Your task to perform on an android device: Show me popular games on the Play Store Image 0: 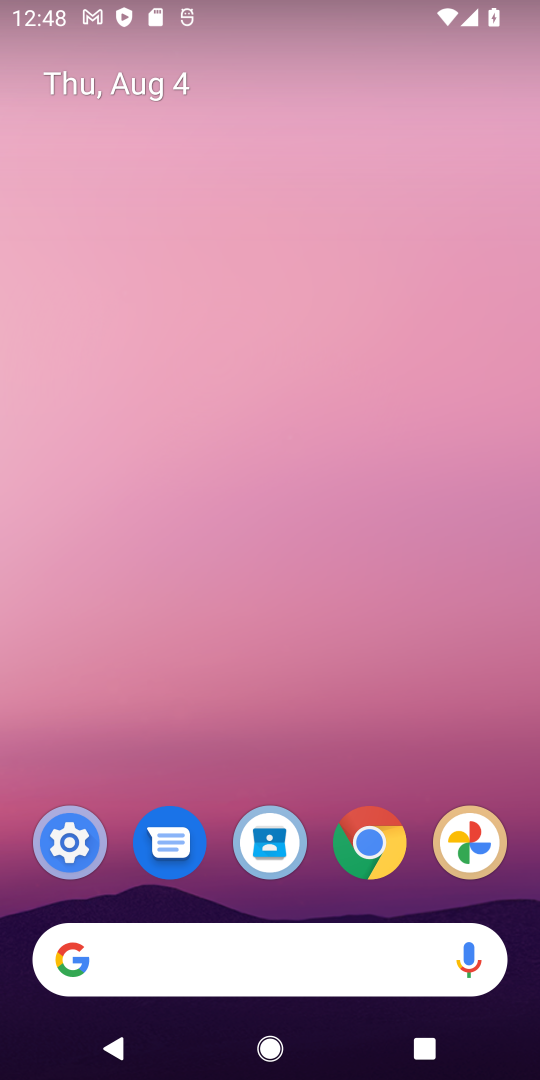
Step 0: drag from (353, 780) to (314, 354)
Your task to perform on an android device: Show me popular games on the Play Store Image 1: 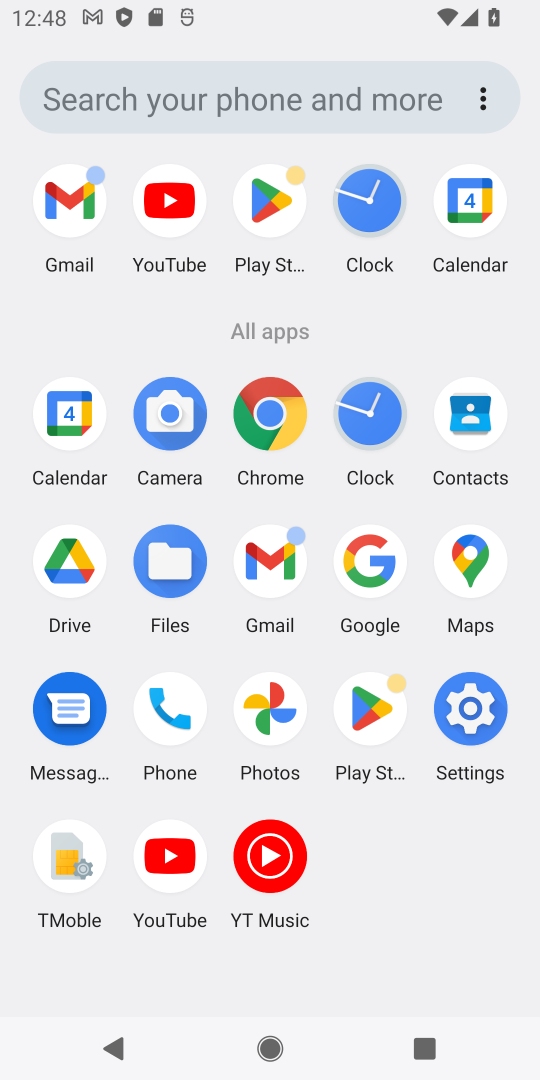
Step 1: click (370, 717)
Your task to perform on an android device: Show me popular games on the Play Store Image 2: 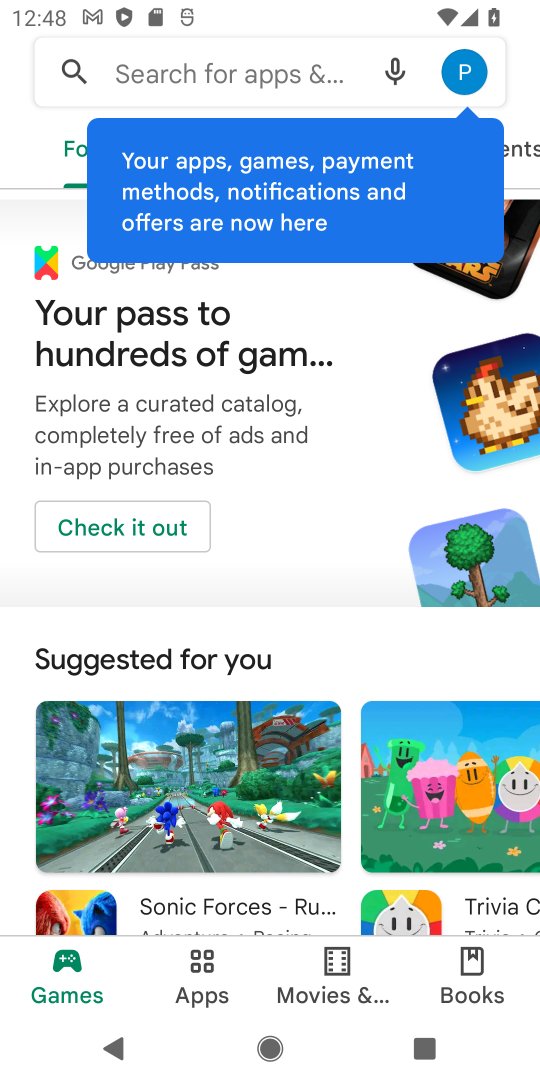
Step 2: click (56, 143)
Your task to perform on an android device: Show me popular games on the Play Store Image 3: 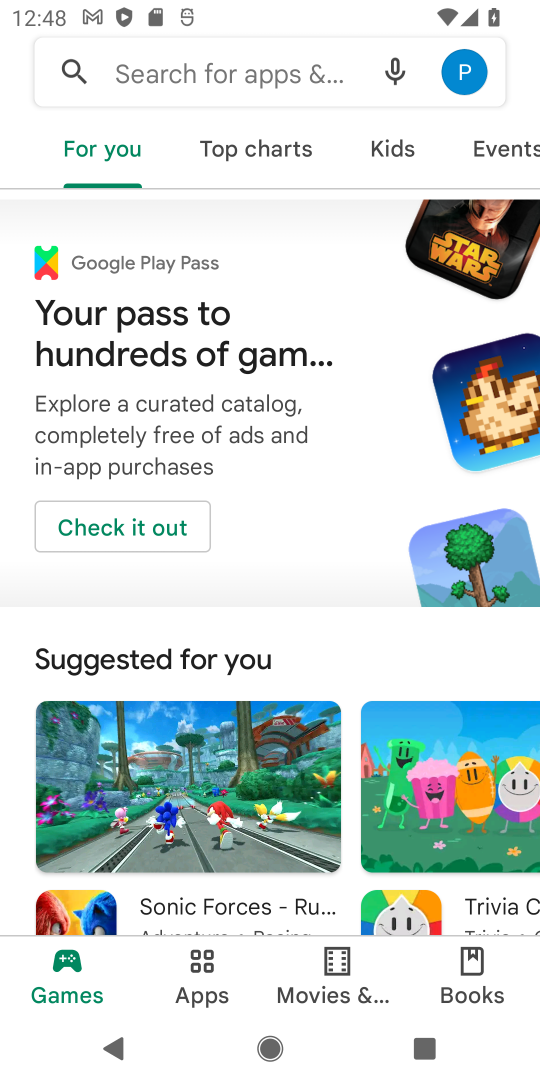
Step 3: click (231, 145)
Your task to perform on an android device: Show me popular games on the Play Store Image 4: 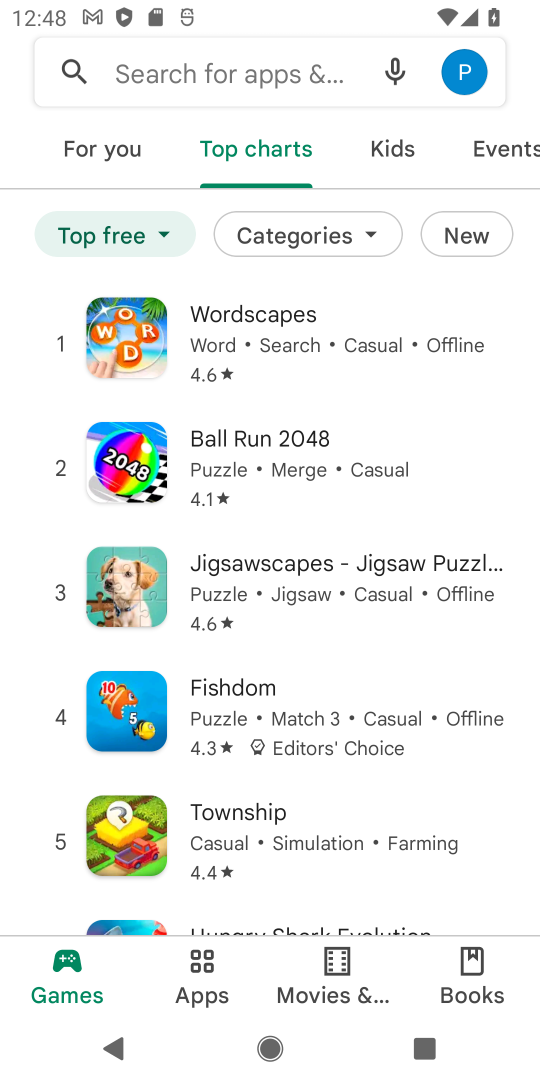
Step 4: task complete